Your task to perform on an android device: choose inbox layout in the gmail app Image 0: 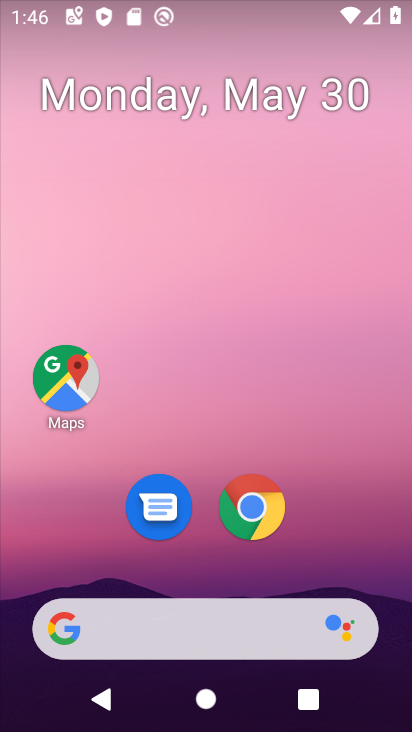
Step 0: drag from (257, 585) to (209, 2)
Your task to perform on an android device: choose inbox layout in the gmail app Image 1: 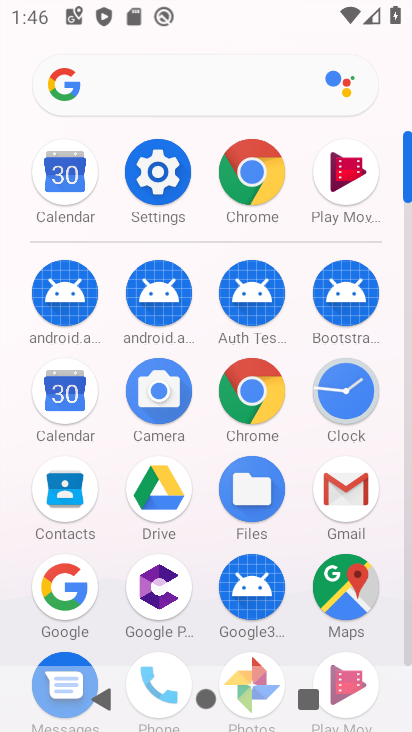
Step 1: click (329, 496)
Your task to perform on an android device: choose inbox layout in the gmail app Image 2: 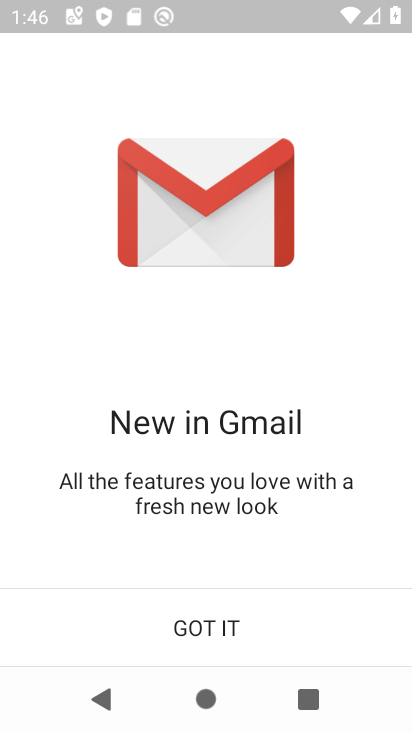
Step 2: click (183, 639)
Your task to perform on an android device: choose inbox layout in the gmail app Image 3: 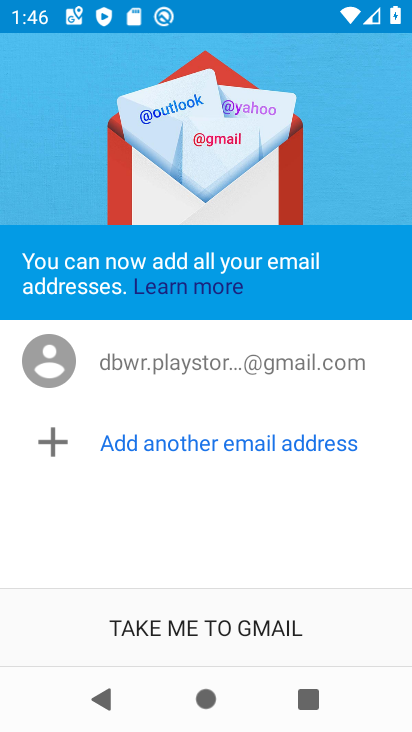
Step 3: click (153, 635)
Your task to perform on an android device: choose inbox layout in the gmail app Image 4: 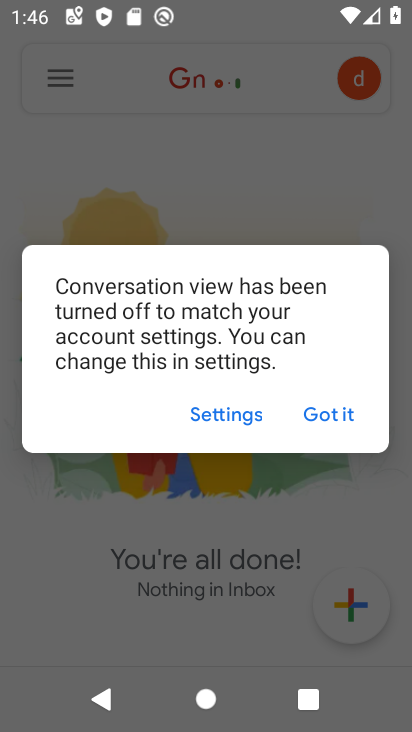
Step 4: click (329, 408)
Your task to perform on an android device: choose inbox layout in the gmail app Image 5: 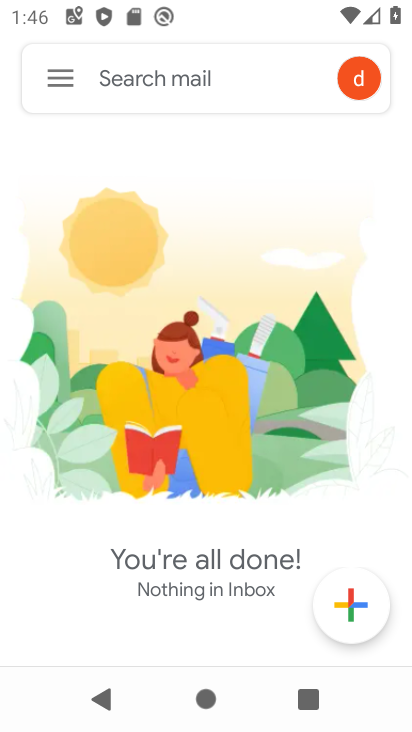
Step 5: click (56, 96)
Your task to perform on an android device: choose inbox layout in the gmail app Image 6: 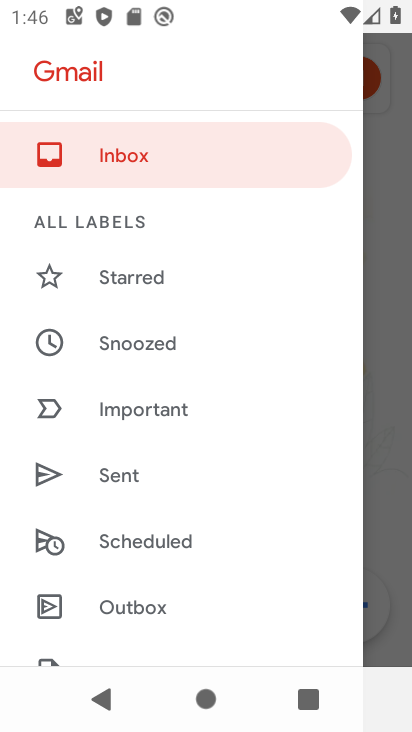
Step 6: drag from (162, 607) to (122, 298)
Your task to perform on an android device: choose inbox layout in the gmail app Image 7: 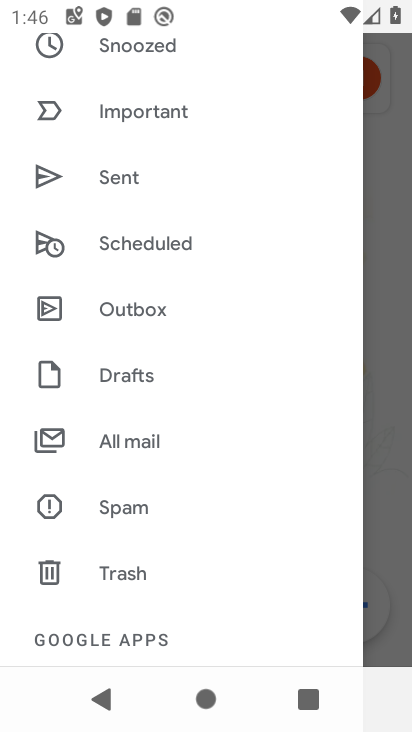
Step 7: drag from (100, 580) to (100, 306)
Your task to perform on an android device: choose inbox layout in the gmail app Image 8: 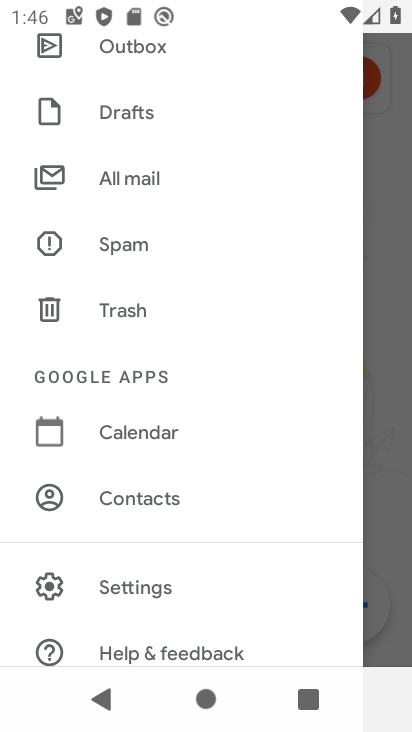
Step 8: click (135, 597)
Your task to perform on an android device: choose inbox layout in the gmail app Image 9: 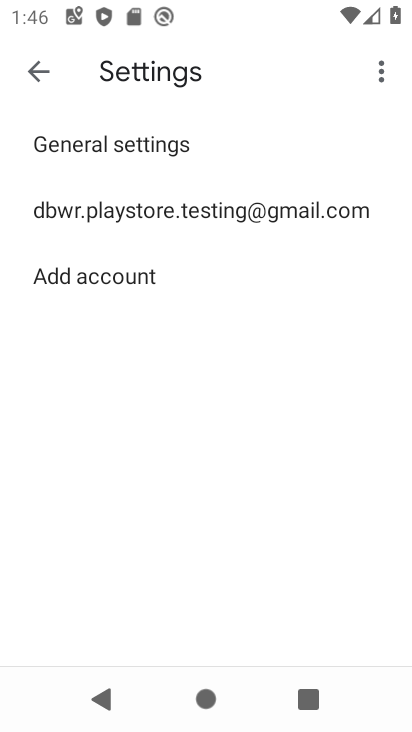
Step 9: click (190, 209)
Your task to perform on an android device: choose inbox layout in the gmail app Image 10: 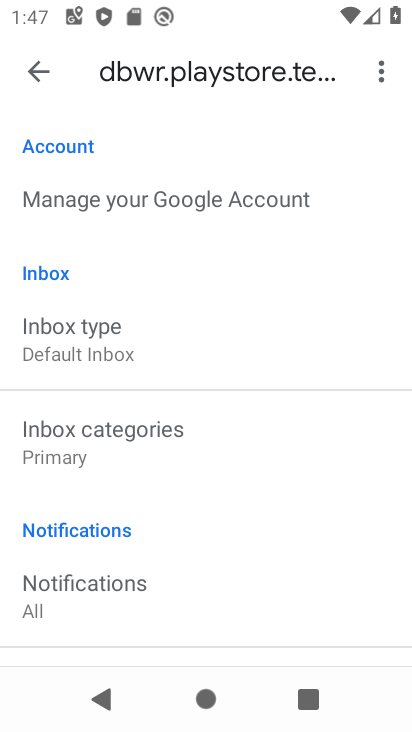
Step 10: click (63, 367)
Your task to perform on an android device: choose inbox layout in the gmail app Image 11: 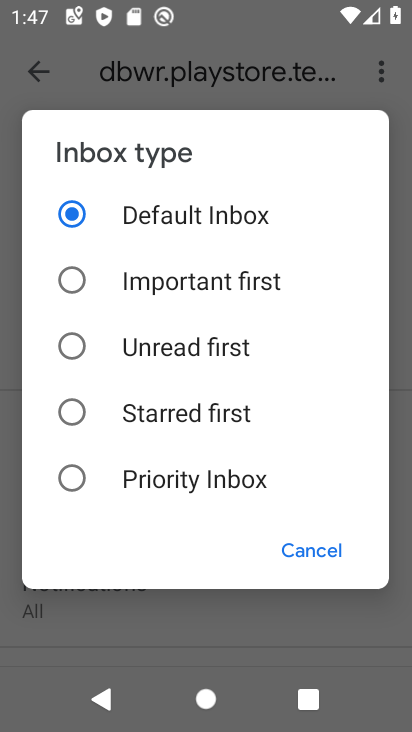
Step 11: click (88, 490)
Your task to perform on an android device: choose inbox layout in the gmail app Image 12: 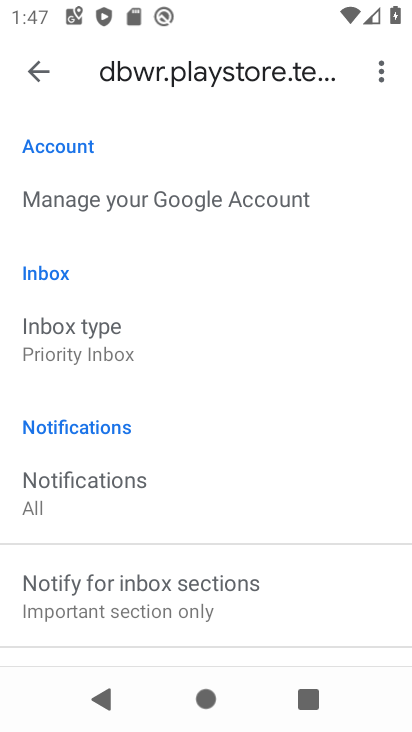
Step 12: task complete